Your task to perform on an android device: clear history in the chrome app Image 0: 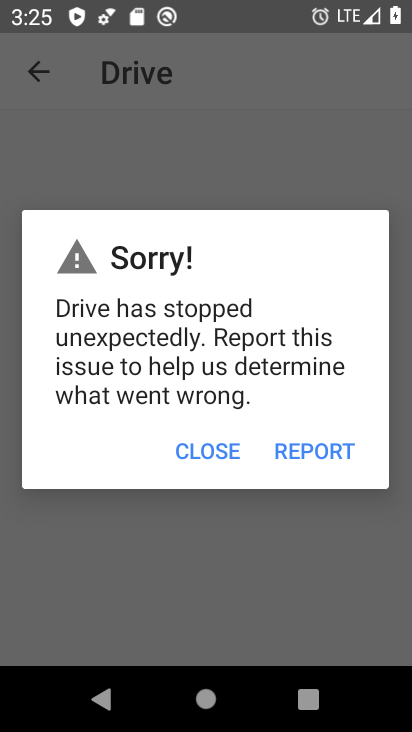
Step 0: click (228, 461)
Your task to perform on an android device: clear history in the chrome app Image 1: 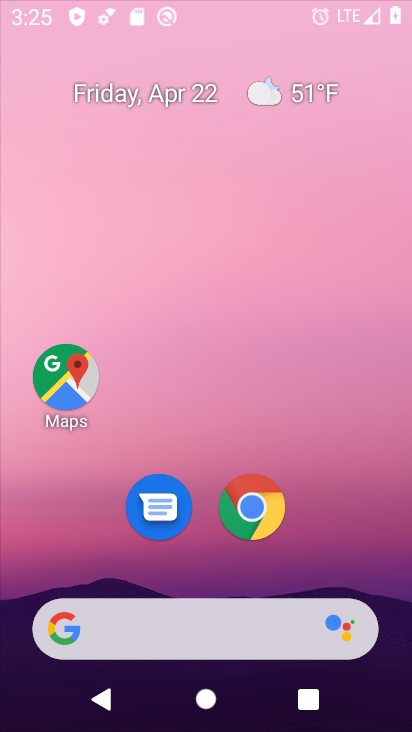
Step 1: press home button
Your task to perform on an android device: clear history in the chrome app Image 2: 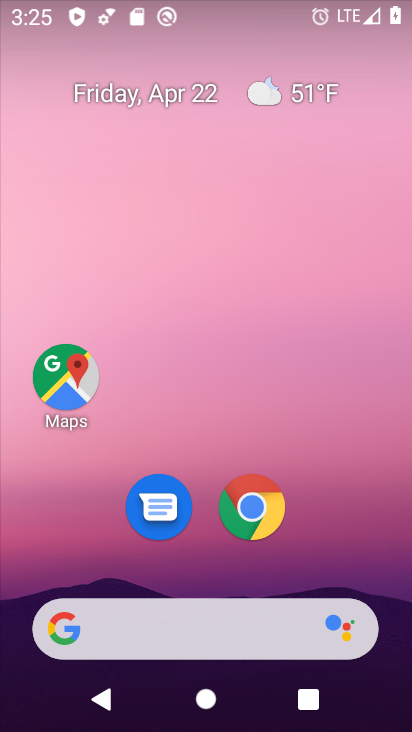
Step 2: drag from (198, 564) to (249, 3)
Your task to perform on an android device: clear history in the chrome app Image 3: 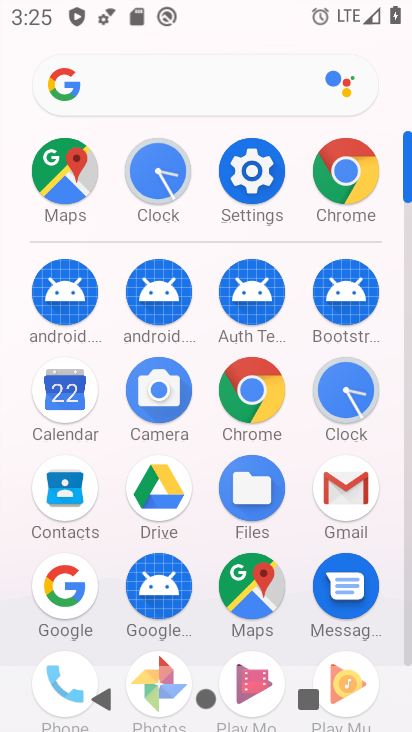
Step 3: click (353, 196)
Your task to perform on an android device: clear history in the chrome app Image 4: 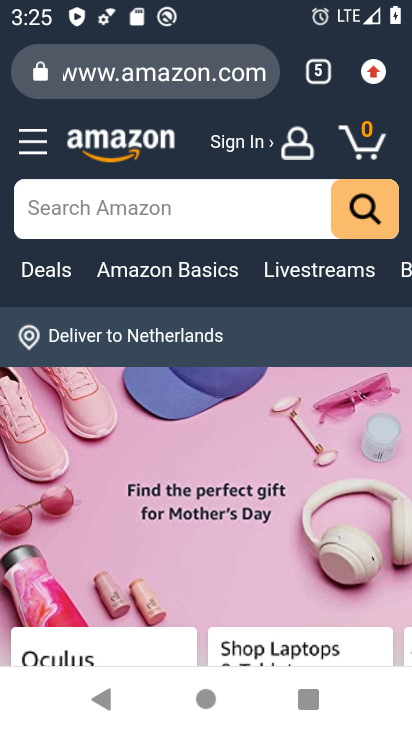
Step 4: drag from (375, 67) to (107, 500)
Your task to perform on an android device: clear history in the chrome app Image 5: 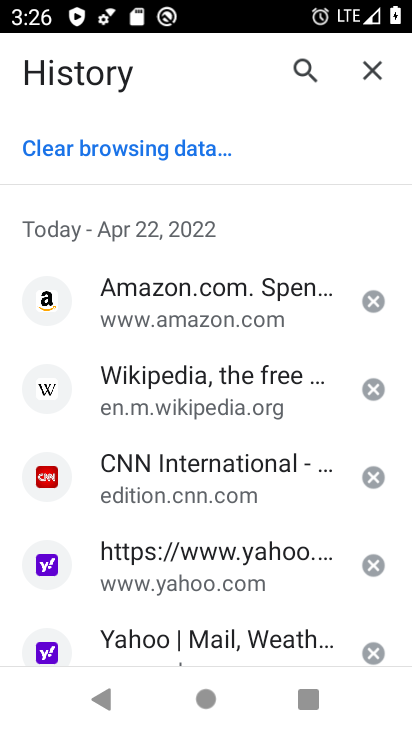
Step 5: click (118, 134)
Your task to perform on an android device: clear history in the chrome app Image 6: 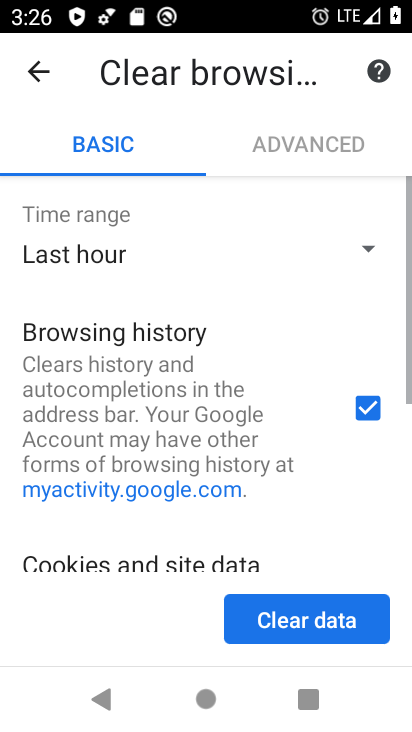
Step 6: click (315, 624)
Your task to perform on an android device: clear history in the chrome app Image 7: 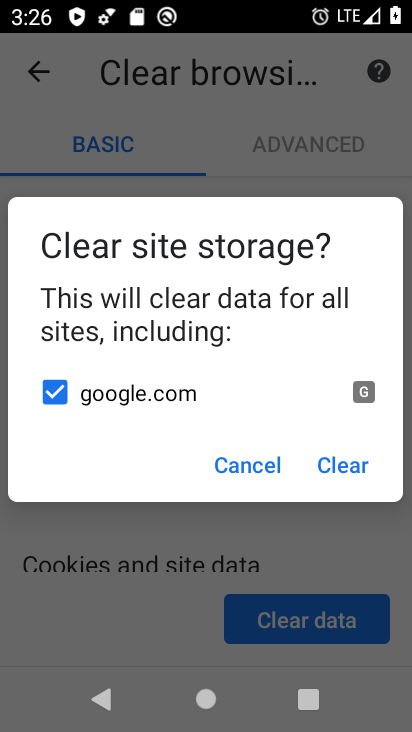
Step 7: click (342, 445)
Your task to perform on an android device: clear history in the chrome app Image 8: 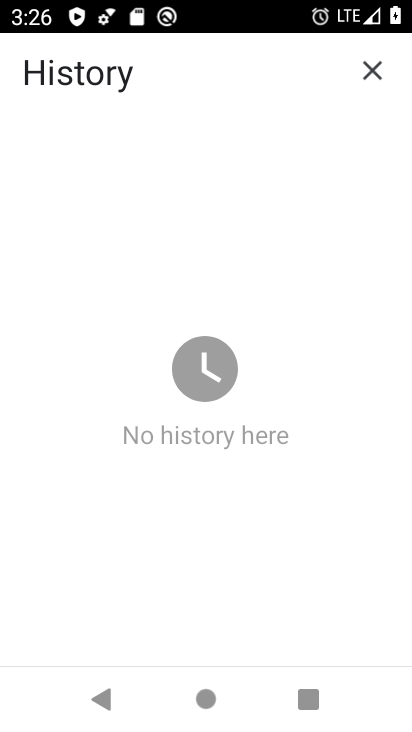
Step 8: task complete